Your task to perform on an android device: add a contact Image 0: 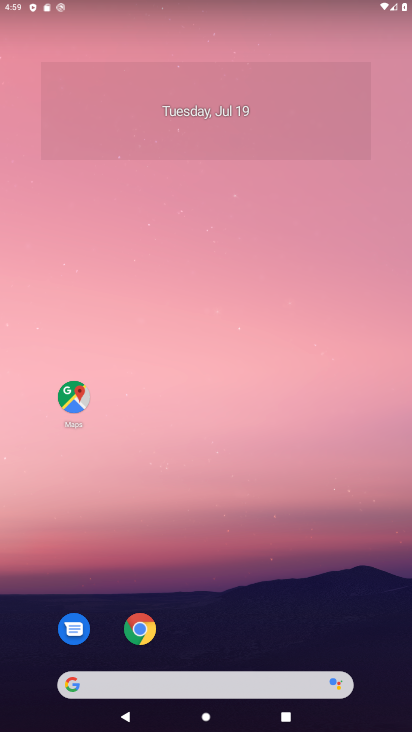
Step 0: press home button
Your task to perform on an android device: add a contact Image 1: 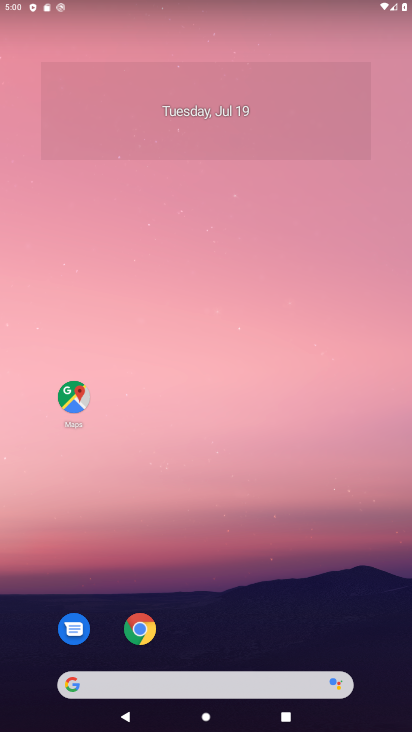
Step 1: drag from (240, 625) to (254, 116)
Your task to perform on an android device: add a contact Image 2: 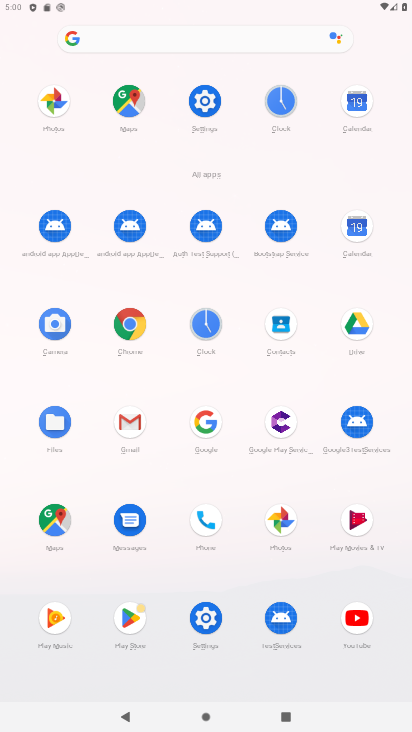
Step 2: click (278, 324)
Your task to perform on an android device: add a contact Image 3: 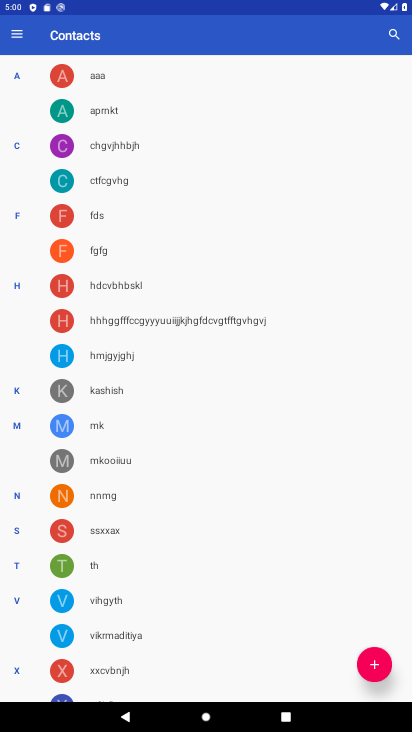
Step 3: click (380, 665)
Your task to perform on an android device: add a contact Image 4: 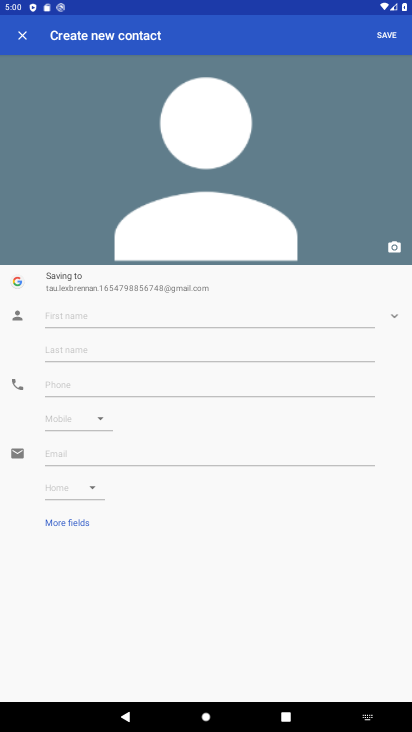
Step 4: click (178, 316)
Your task to perform on an android device: add a contact Image 5: 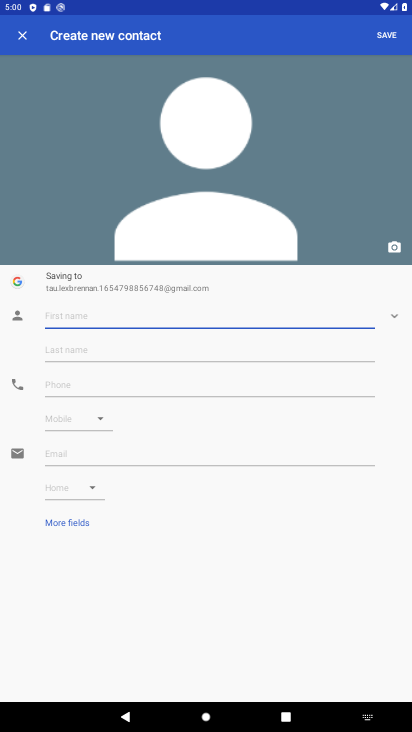
Step 5: type "gjgjhjhjhj"
Your task to perform on an android device: add a contact Image 6: 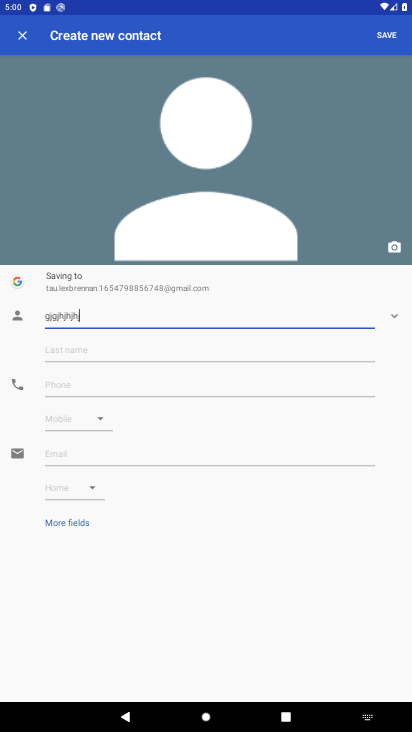
Step 6: click (117, 391)
Your task to perform on an android device: add a contact Image 7: 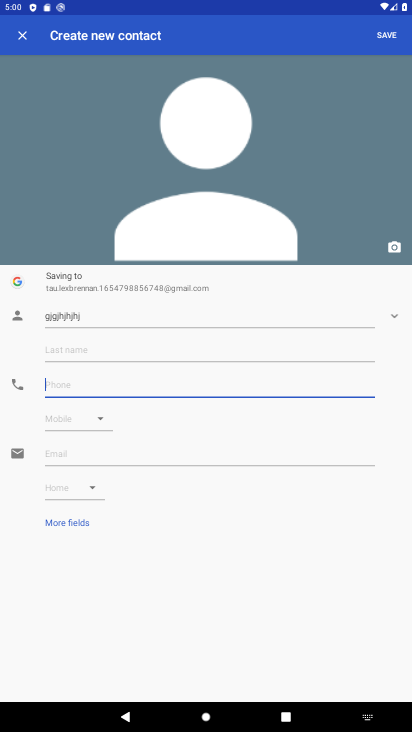
Step 7: type "787878787"
Your task to perform on an android device: add a contact Image 8: 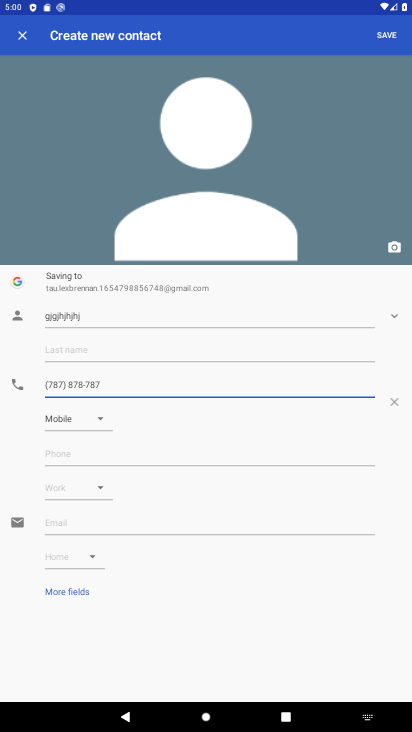
Step 8: click (386, 33)
Your task to perform on an android device: add a contact Image 9: 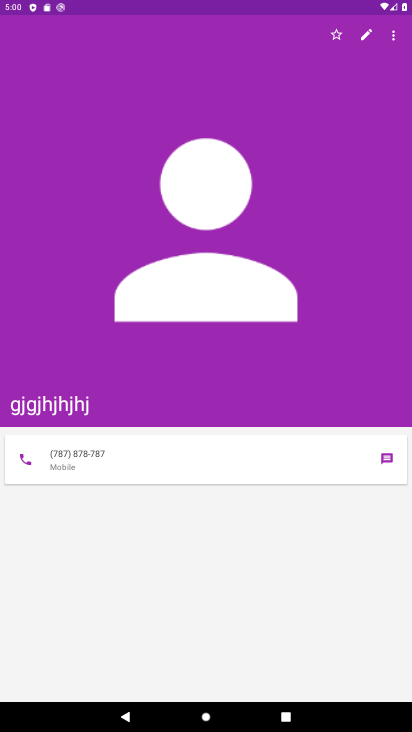
Step 9: task complete